Your task to perform on an android device: Open calendar and show me the fourth week of next month Image 0: 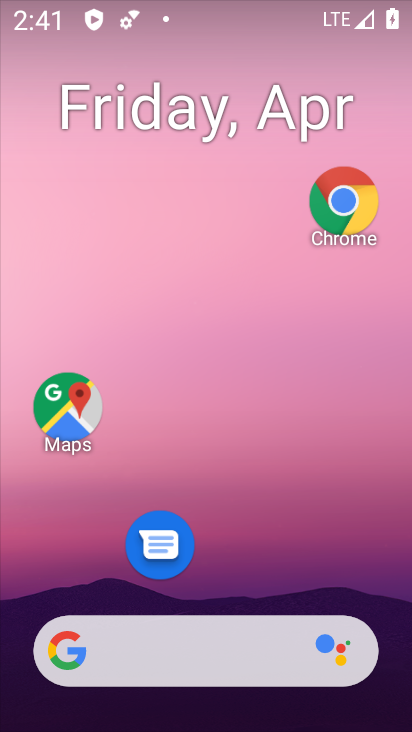
Step 0: drag from (233, 582) to (276, 4)
Your task to perform on an android device: Open calendar and show me the fourth week of next month Image 1: 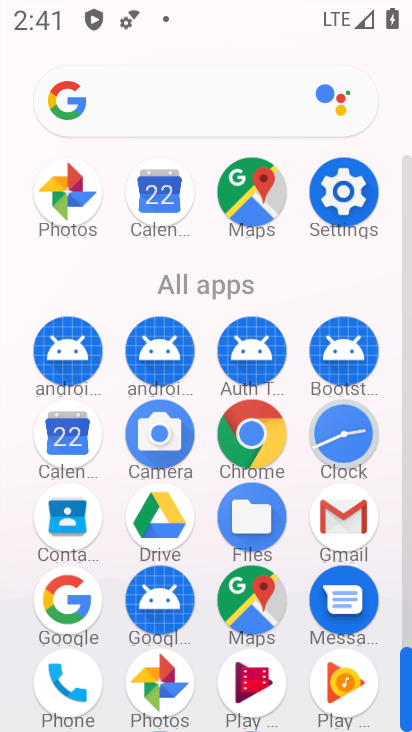
Step 1: click (68, 432)
Your task to perform on an android device: Open calendar and show me the fourth week of next month Image 2: 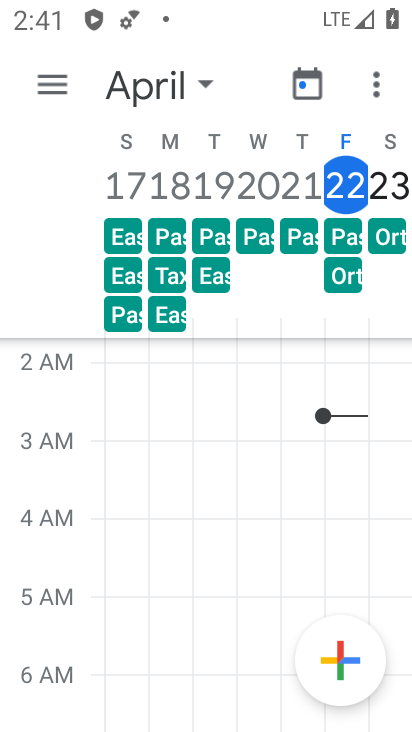
Step 2: task complete